Your task to perform on an android device: Do I have any events tomorrow? Image 0: 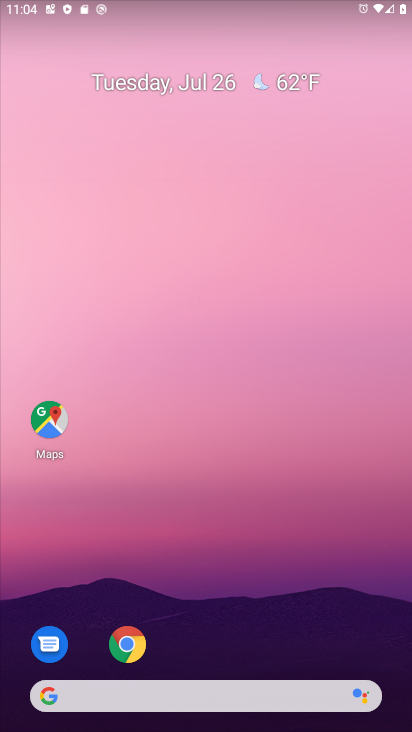
Step 0: drag from (236, 654) to (246, 134)
Your task to perform on an android device: Do I have any events tomorrow? Image 1: 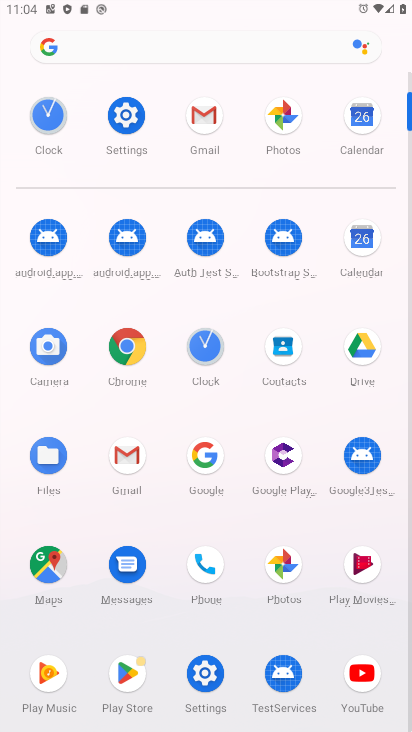
Step 1: click (372, 240)
Your task to perform on an android device: Do I have any events tomorrow? Image 2: 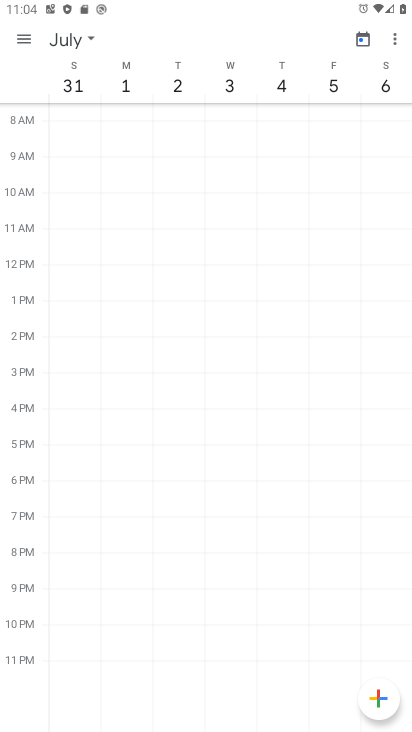
Step 2: click (24, 34)
Your task to perform on an android device: Do I have any events tomorrow? Image 3: 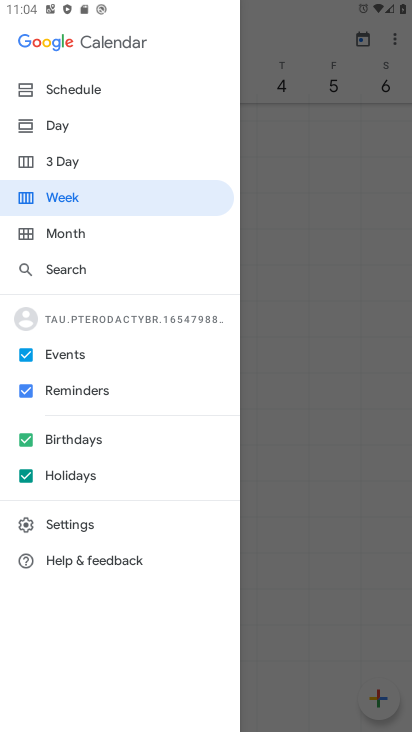
Step 3: click (70, 124)
Your task to perform on an android device: Do I have any events tomorrow? Image 4: 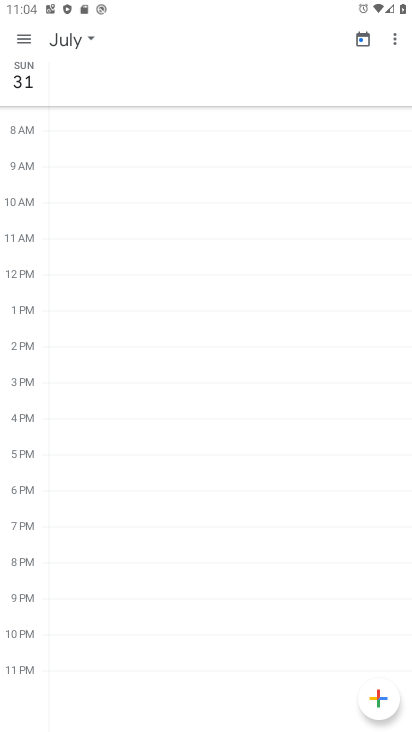
Step 4: click (86, 40)
Your task to perform on an android device: Do I have any events tomorrow? Image 5: 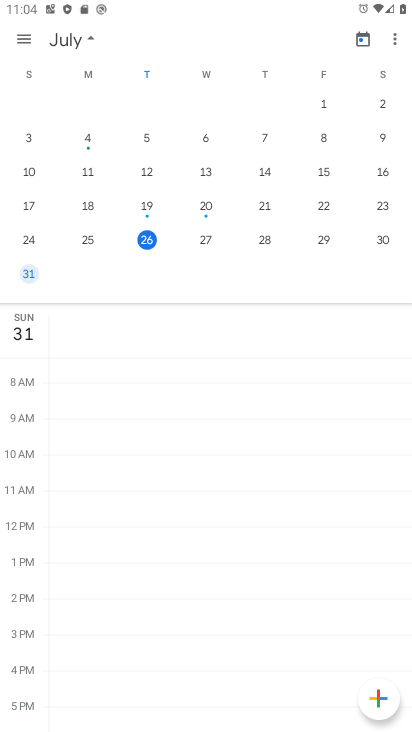
Step 5: click (206, 238)
Your task to perform on an android device: Do I have any events tomorrow? Image 6: 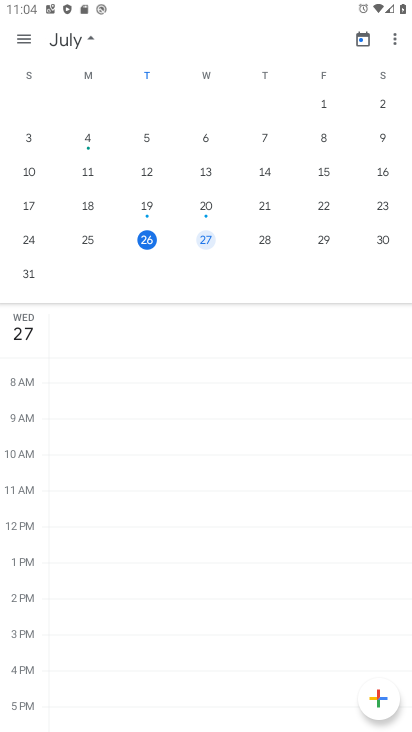
Step 6: task complete